Your task to perform on an android device: What's the weather today? Image 0: 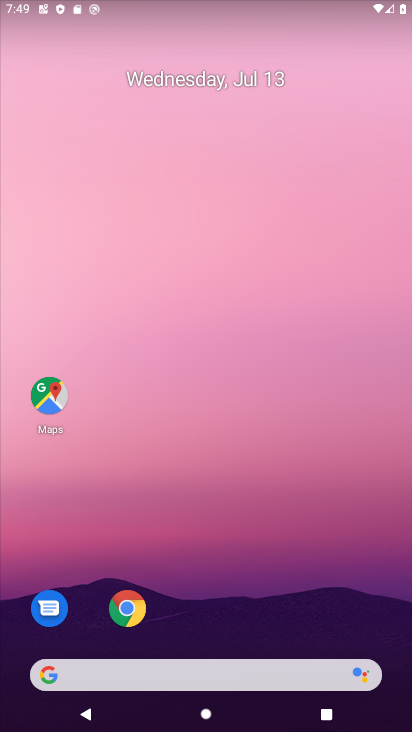
Step 0: click (204, 663)
Your task to perform on an android device: What's the weather today? Image 1: 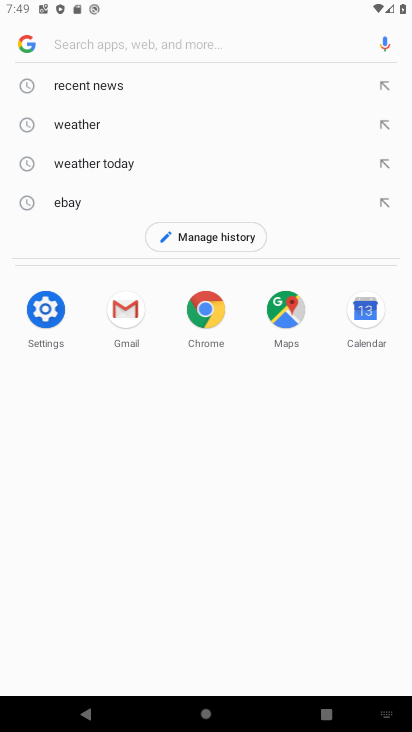
Step 1: click (82, 120)
Your task to perform on an android device: What's the weather today? Image 2: 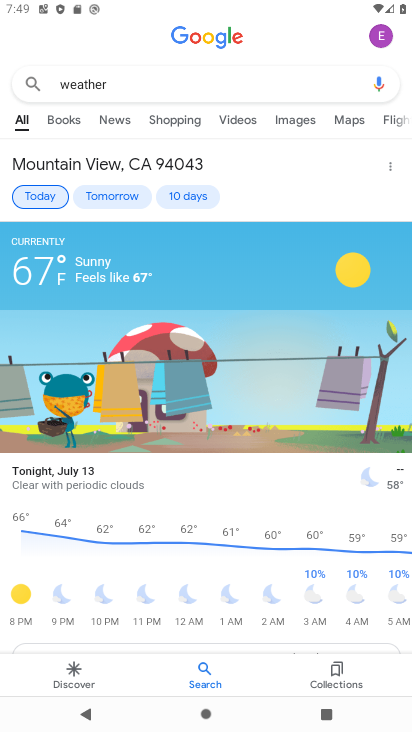
Step 2: click (44, 198)
Your task to perform on an android device: What's the weather today? Image 3: 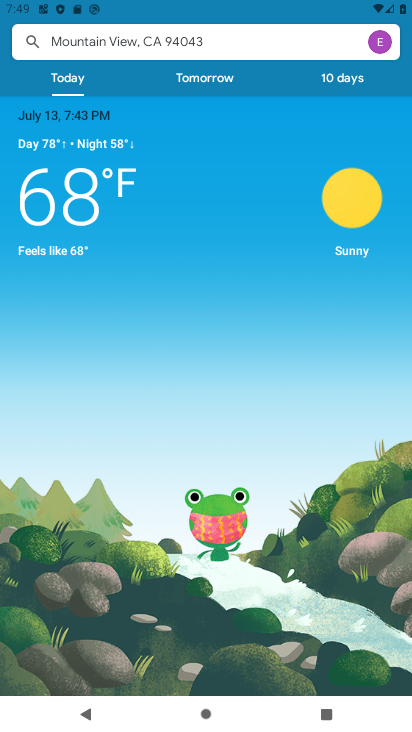
Step 3: task complete